Your task to perform on an android device: Go to privacy settings Image 0: 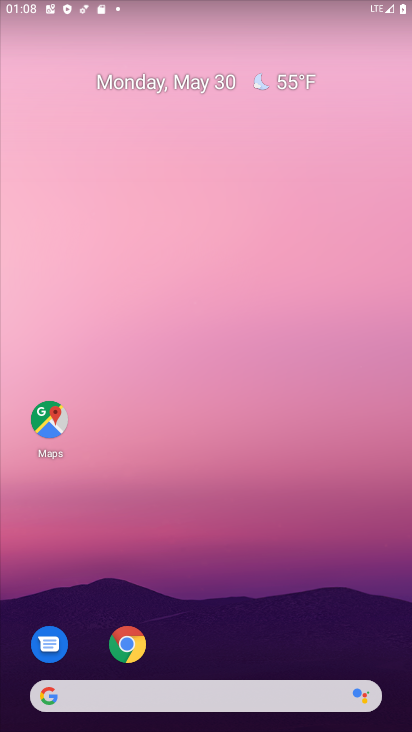
Step 0: drag from (267, 570) to (265, 191)
Your task to perform on an android device: Go to privacy settings Image 1: 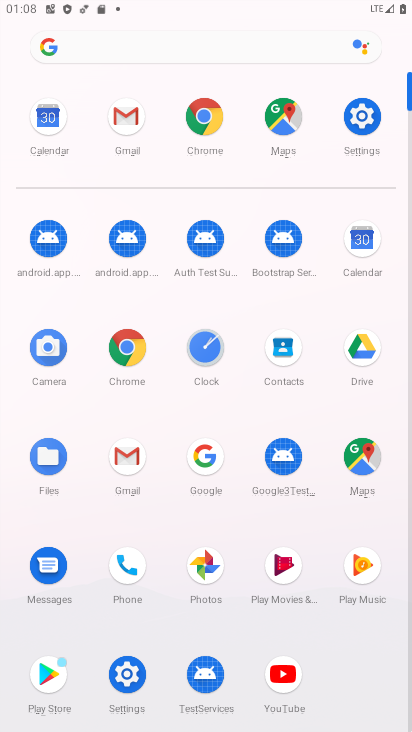
Step 1: click (361, 127)
Your task to perform on an android device: Go to privacy settings Image 2: 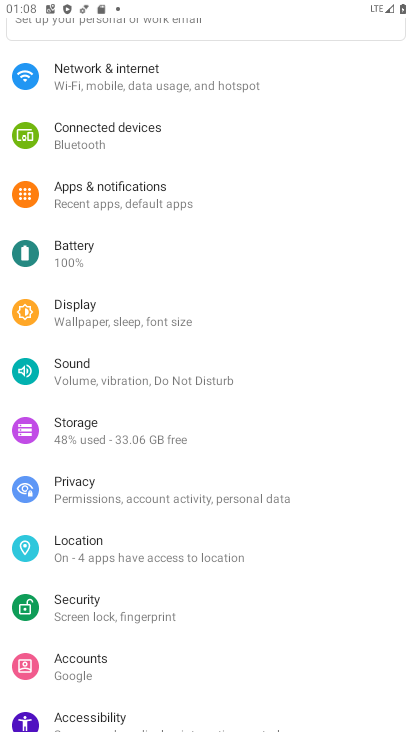
Step 2: click (179, 499)
Your task to perform on an android device: Go to privacy settings Image 3: 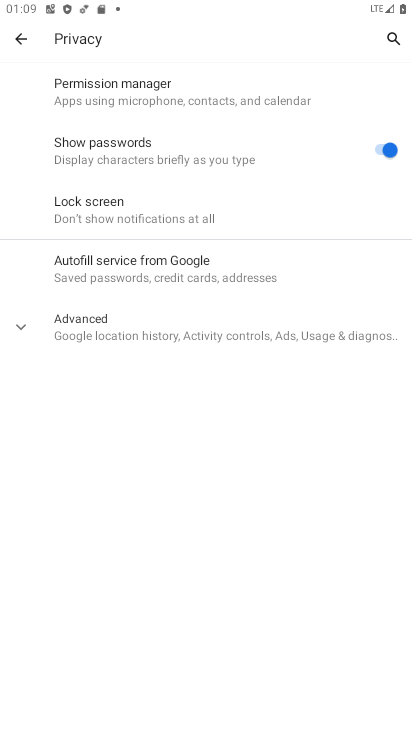
Step 3: task complete